Your task to perform on an android device: Go to Maps Image 0: 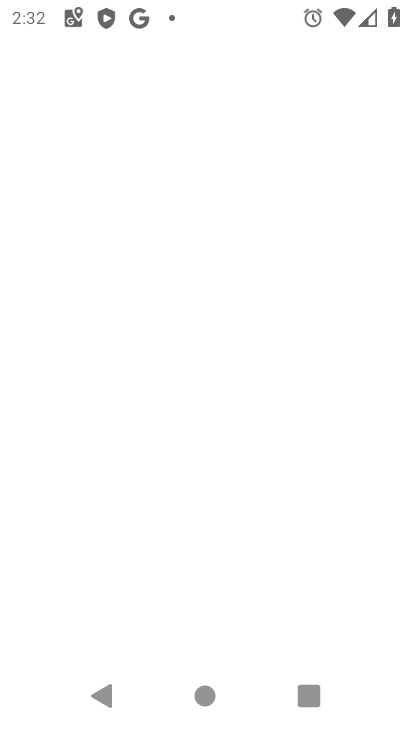
Step 0: click (231, 76)
Your task to perform on an android device: Go to Maps Image 1: 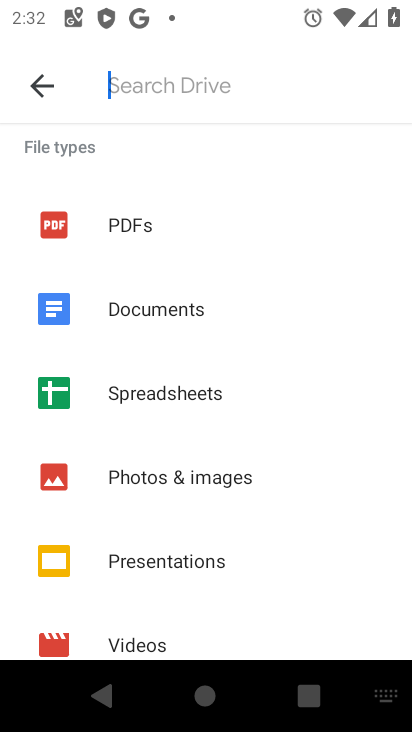
Step 1: press home button
Your task to perform on an android device: Go to Maps Image 2: 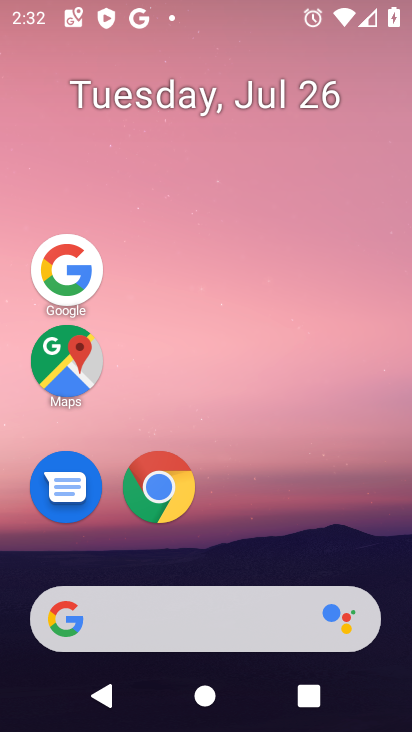
Step 2: drag from (200, 685) to (340, 0)
Your task to perform on an android device: Go to Maps Image 3: 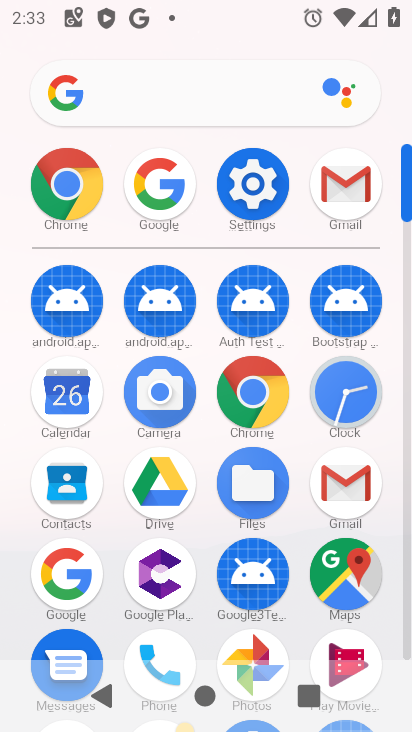
Step 3: click (338, 587)
Your task to perform on an android device: Go to Maps Image 4: 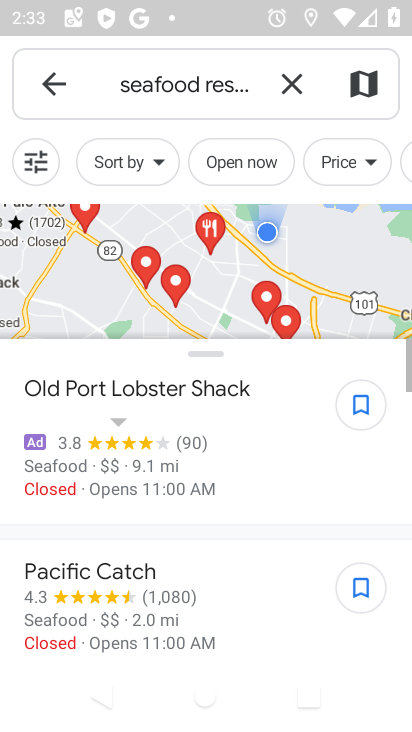
Step 4: task complete